Your task to perform on an android device: turn on location history Image 0: 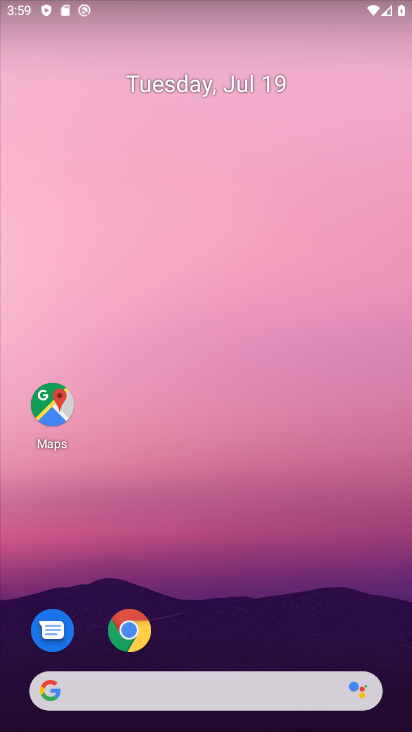
Step 0: drag from (26, 678) to (271, 268)
Your task to perform on an android device: turn on location history Image 1: 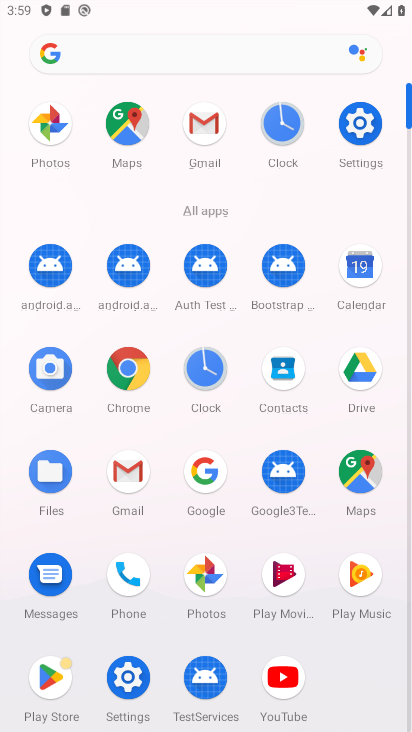
Step 1: click (124, 661)
Your task to perform on an android device: turn on location history Image 2: 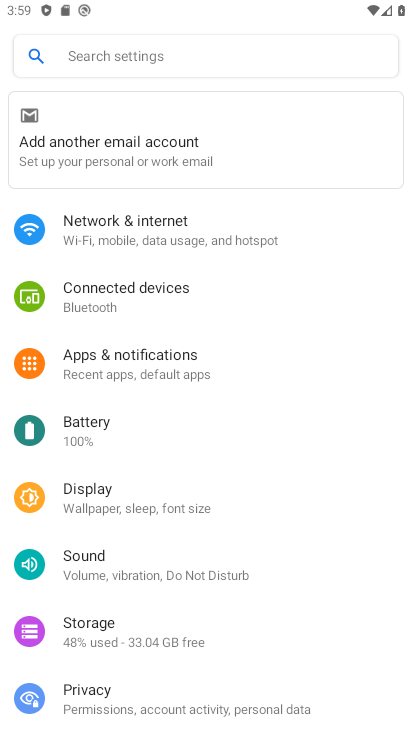
Step 2: drag from (178, 687) to (253, 475)
Your task to perform on an android device: turn on location history Image 3: 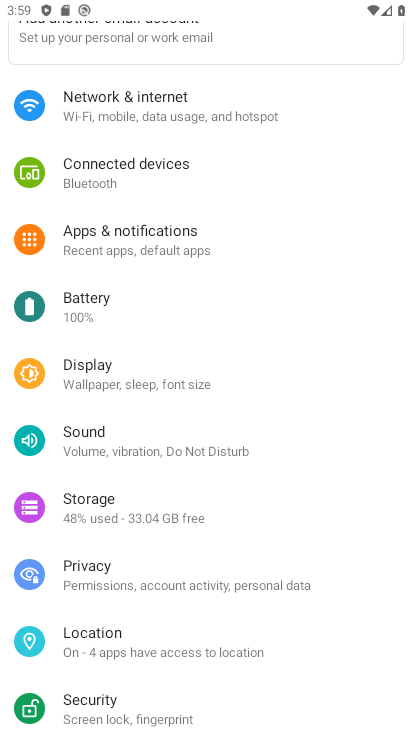
Step 3: click (118, 652)
Your task to perform on an android device: turn on location history Image 4: 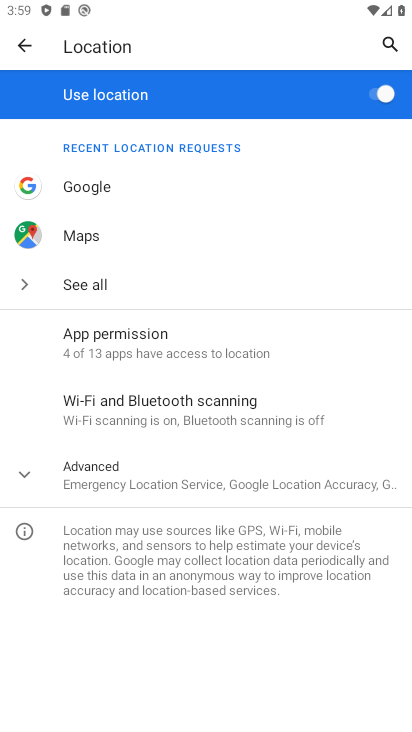
Step 4: task complete